Your task to perform on an android device: turn off picture-in-picture Image 0: 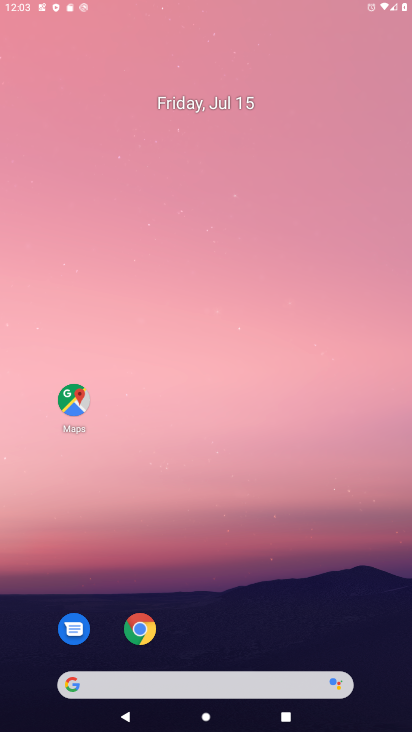
Step 0: press home button
Your task to perform on an android device: turn off picture-in-picture Image 1: 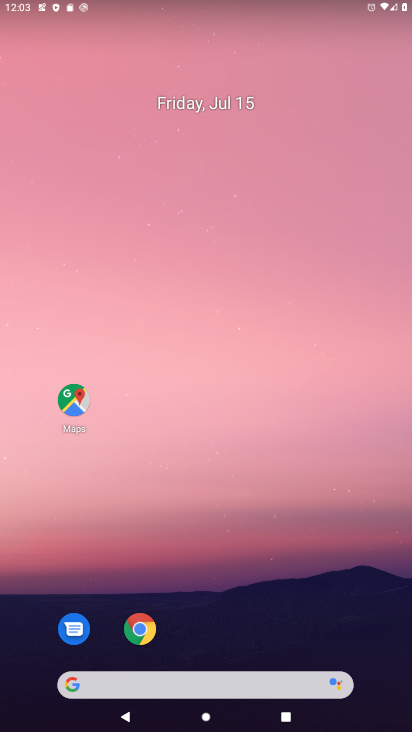
Step 1: click (141, 624)
Your task to perform on an android device: turn off picture-in-picture Image 2: 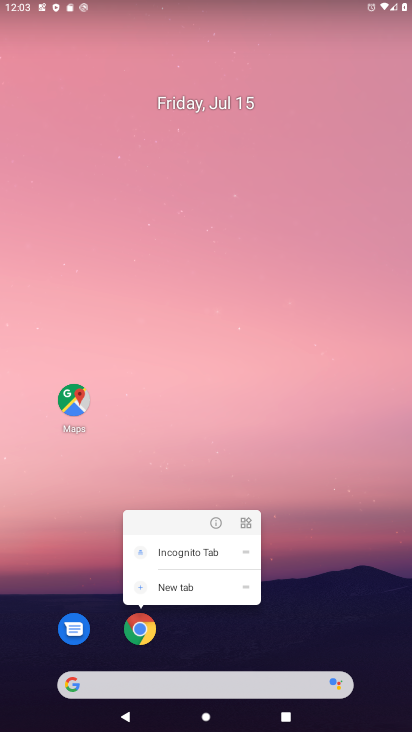
Step 2: click (218, 521)
Your task to perform on an android device: turn off picture-in-picture Image 3: 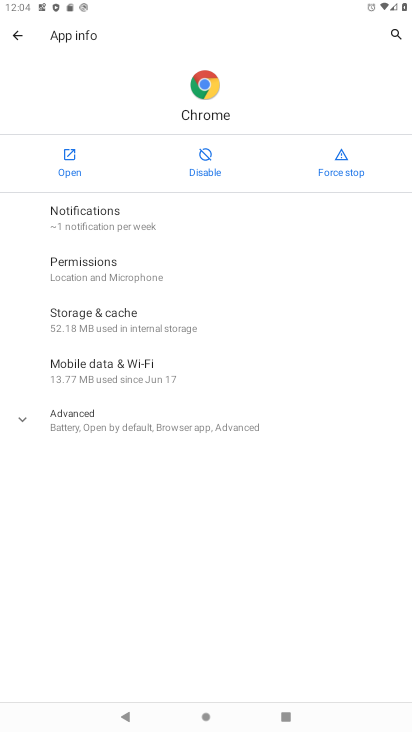
Step 3: click (70, 413)
Your task to perform on an android device: turn off picture-in-picture Image 4: 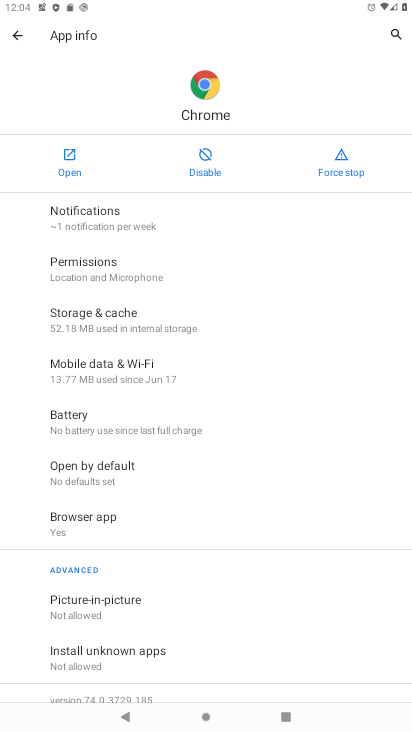
Step 4: click (89, 603)
Your task to perform on an android device: turn off picture-in-picture Image 5: 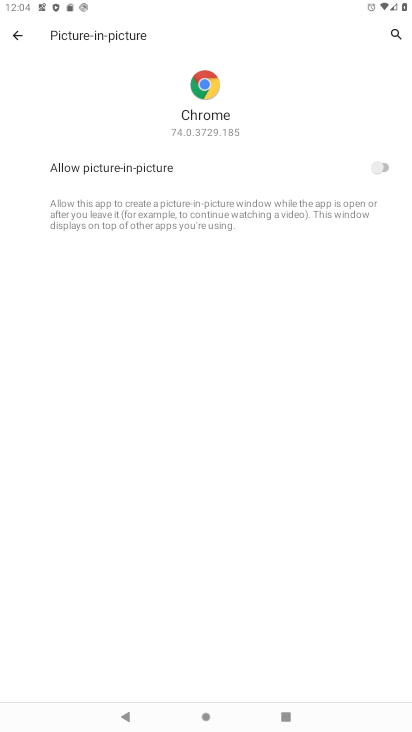
Step 5: task complete